Your task to perform on an android device: change keyboard looks Image 0: 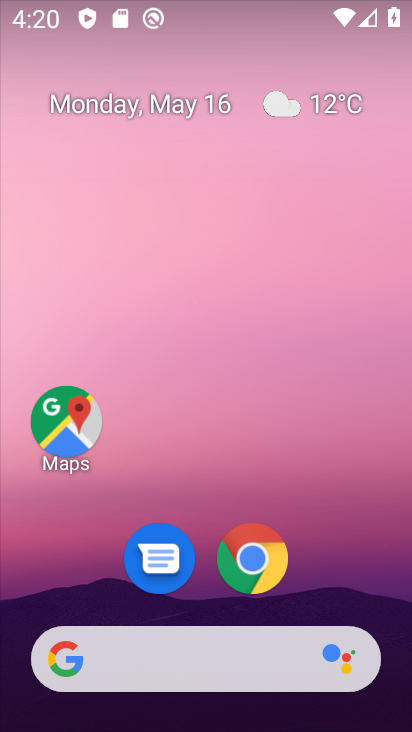
Step 0: drag from (306, 588) to (286, 119)
Your task to perform on an android device: change keyboard looks Image 1: 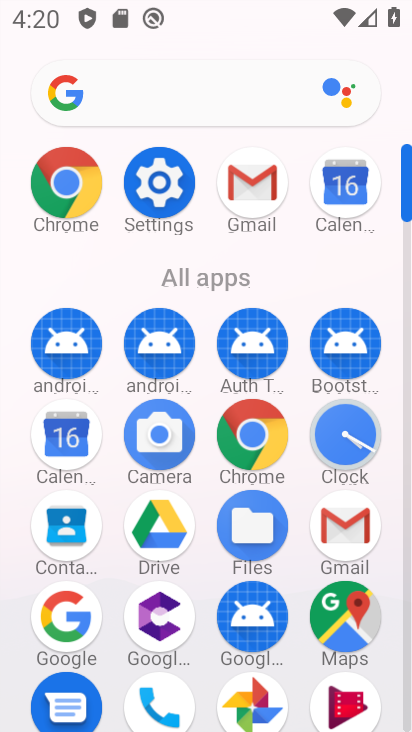
Step 1: click (133, 200)
Your task to perform on an android device: change keyboard looks Image 2: 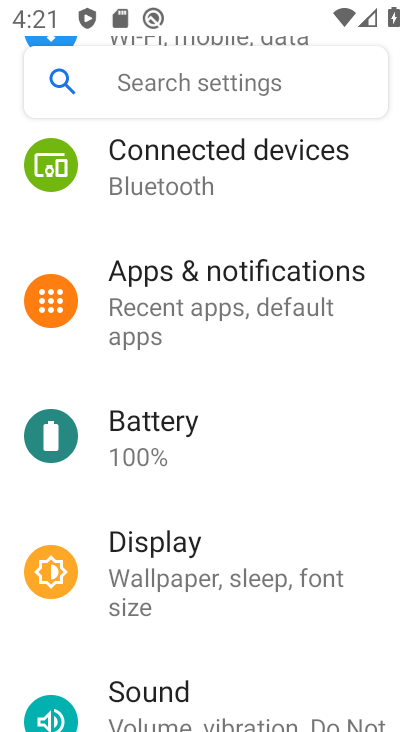
Step 2: drag from (252, 330) to (273, 130)
Your task to perform on an android device: change keyboard looks Image 3: 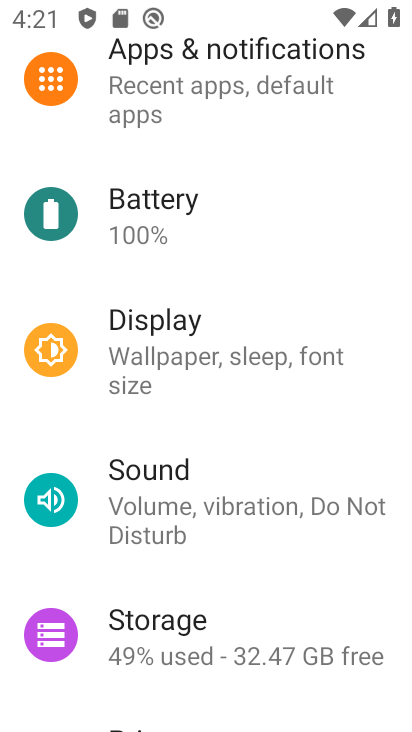
Step 3: drag from (269, 659) to (265, 187)
Your task to perform on an android device: change keyboard looks Image 4: 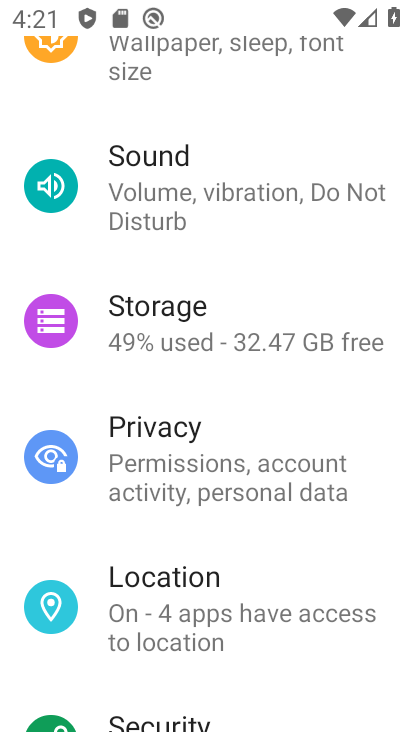
Step 4: drag from (269, 727) to (289, 179)
Your task to perform on an android device: change keyboard looks Image 5: 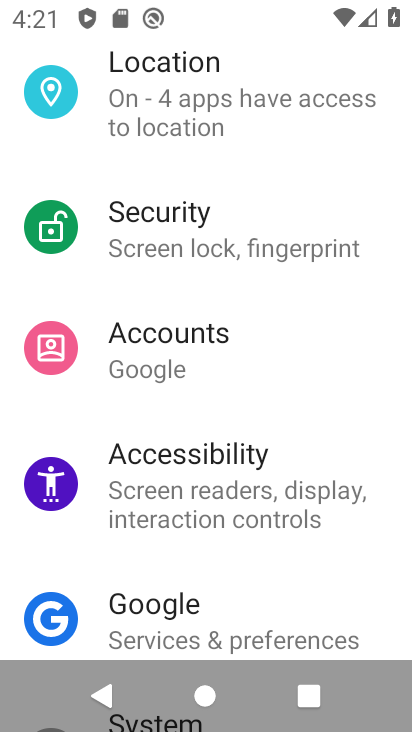
Step 5: drag from (282, 600) to (298, 137)
Your task to perform on an android device: change keyboard looks Image 6: 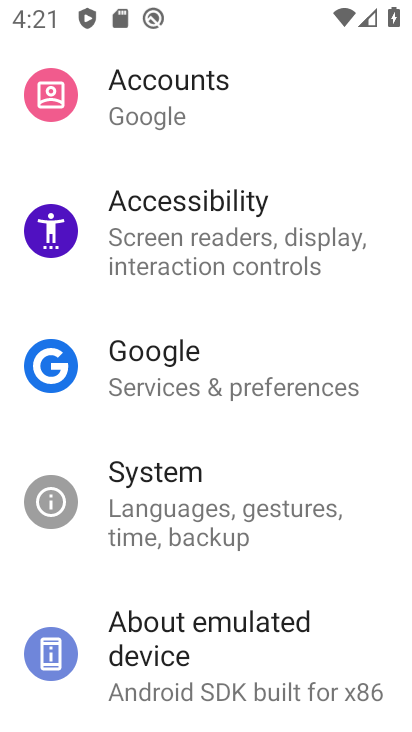
Step 6: click (247, 513)
Your task to perform on an android device: change keyboard looks Image 7: 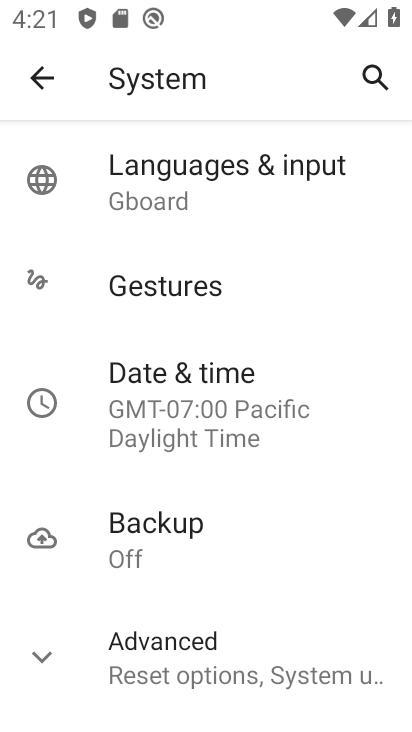
Step 7: click (291, 181)
Your task to perform on an android device: change keyboard looks Image 8: 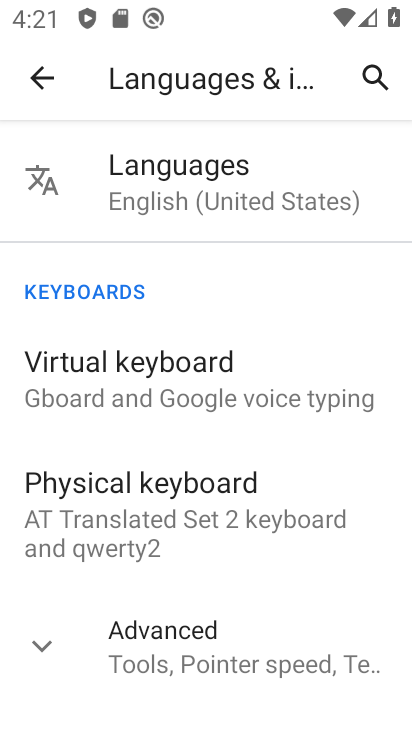
Step 8: click (223, 380)
Your task to perform on an android device: change keyboard looks Image 9: 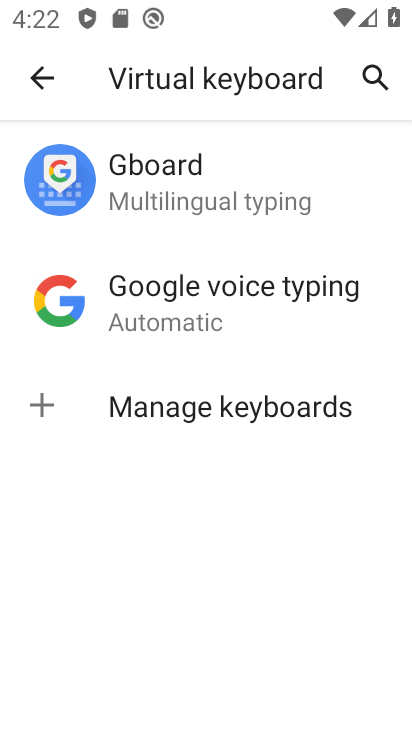
Step 9: click (292, 191)
Your task to perform on an android device: change keyboard looks Image 10: 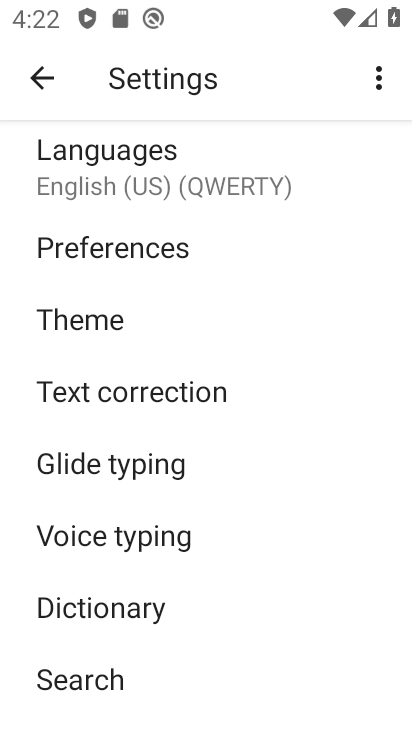
Step 10: click (157, 338)
Your task to perform on an android device: change keyboard looks Image 11: 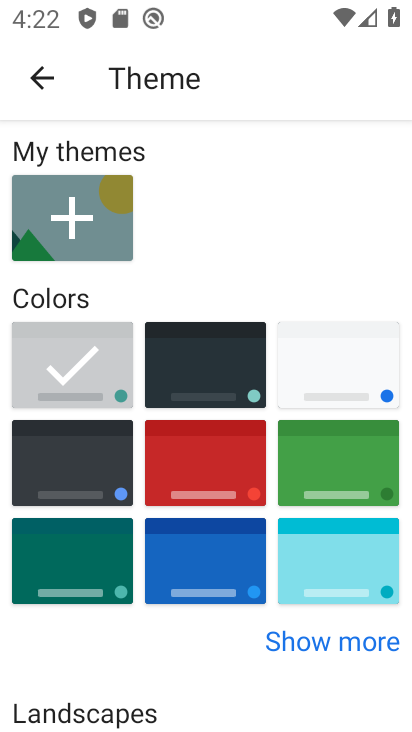
Step 11: click (161, 367)
Your task to perform on an android device: change keyboard looks Image 12: 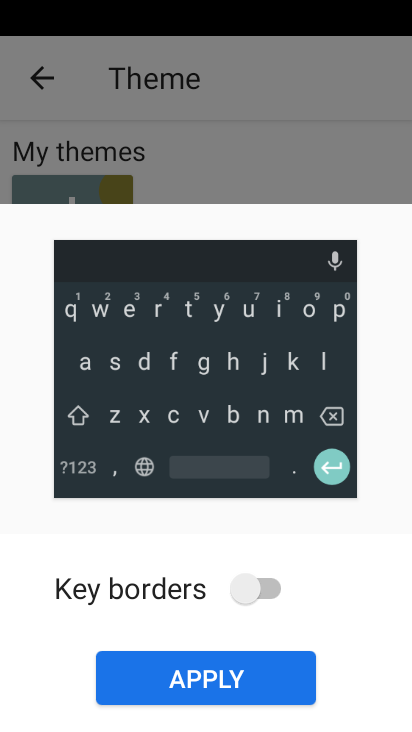
Step 12: click (250, 682)
Your task to perform on an android device: change keyboard looks Image 13: 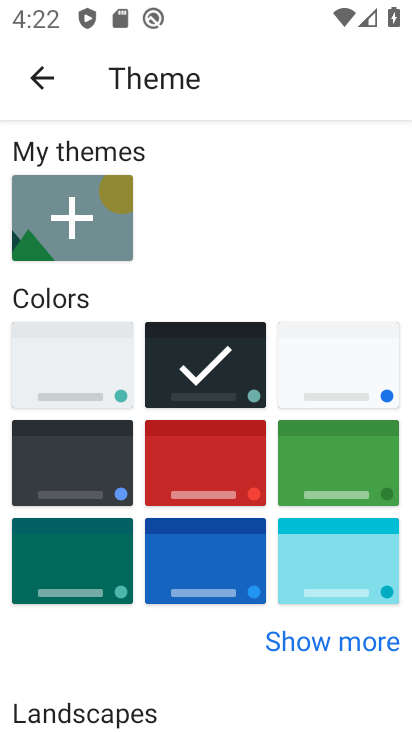
Step 13: task complete